Your task to perform on an android device: open sync settings in chrome Image 0: 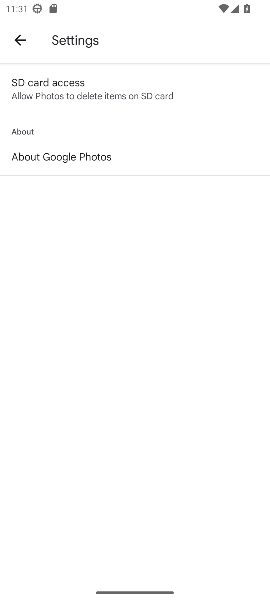
Step 0: press home button
Your task to perform on an android device: open sync settings in chrome Image 1: 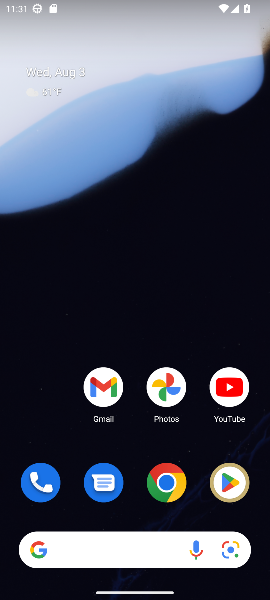
Step 1: click (133, 522)
Your task to perform on an android device: open sync settings in chrome Image 2: 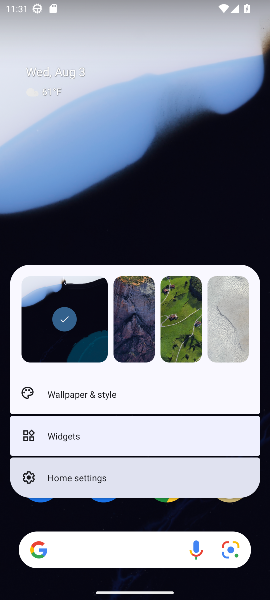
Step 2: click (156, 496)
Your task to perform on an android device: open sync settings in chrome Image 3: 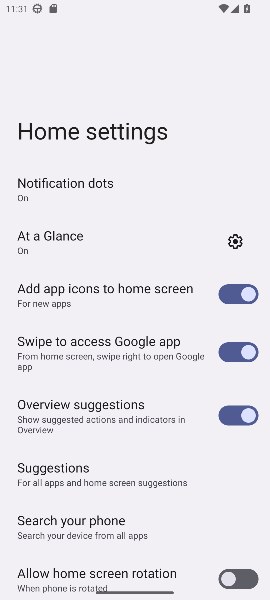
Step 3: press home button
Your task to perform on an android device: open sync settings in chrome Image 4: 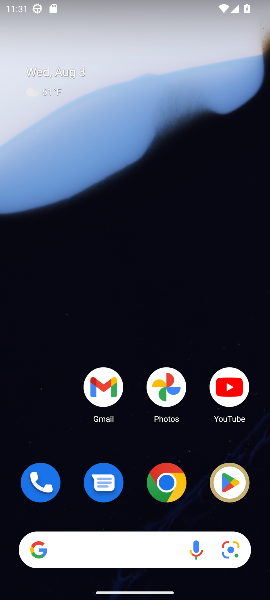
Step 4: click (168, 491)
Your task to perform on an android device: open sync settings in chrome Image 5: 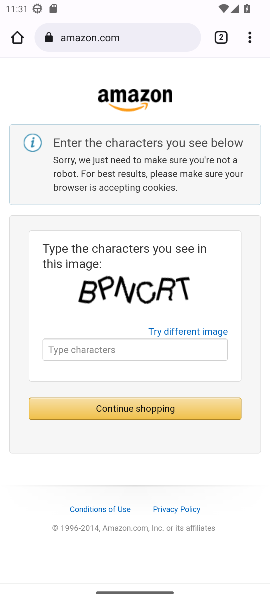
Step 5: click (249, 32)
Your task to perform on an android device: open sync settings in chrome Image 6: 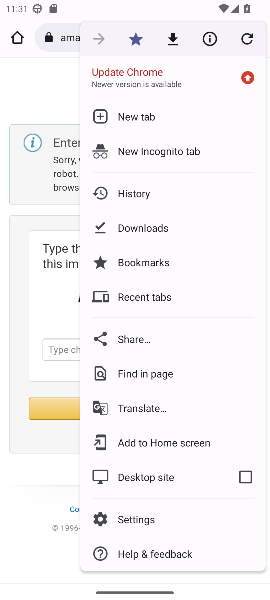
Step 6: click (127, 515)
Your task to perform on an android device: open sync settings in chrome Image 7: 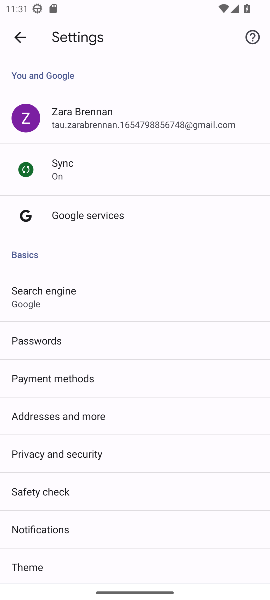
Step 7: task complete